Your task to perform on an android device: remove spam from my inbox in the gmail app Image 0: 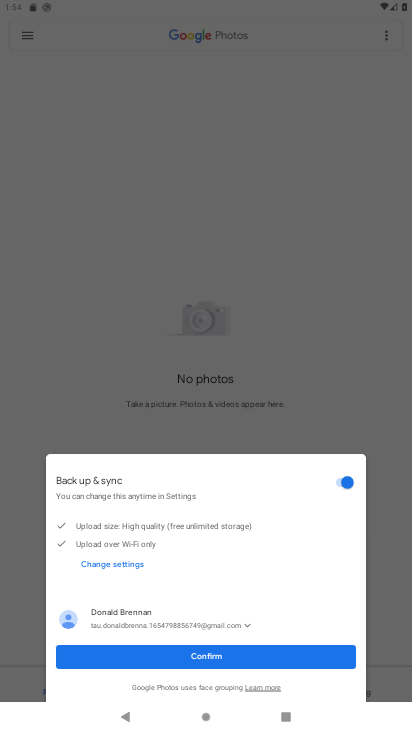
Step 0: press home button
Your task to perform on an android device: remove spam from my inbox in the gmail app Image 1: 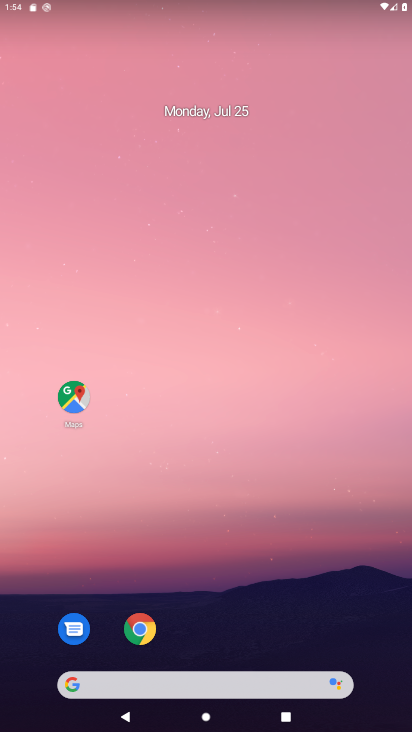
Step 1: drag from (266, 523) to (284, 32)
Your task to perform on an android device: remove spam from my inbox in the gmail app Image 2: 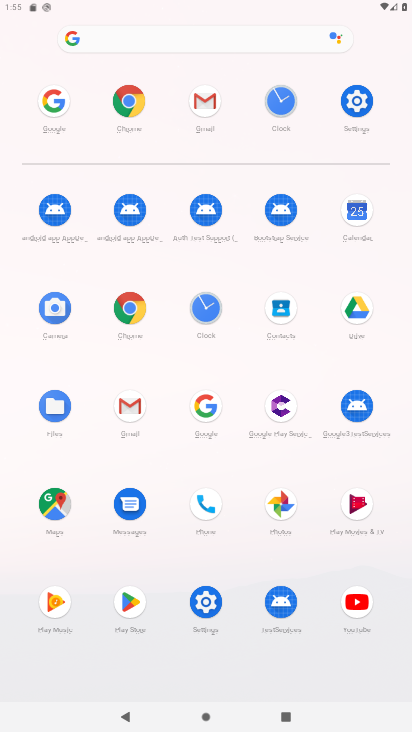
Step 2: click (210, 106)
Your task to perform on an android device: remove spam from my inbox in the gmail app Image 3: 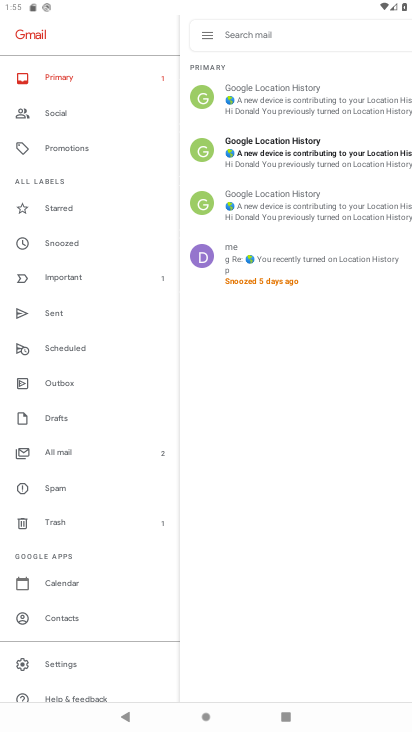
Step 3: click (66, 491)
Your task to perform on an android device: remove spam from my inbox in the gmail app Image 4: 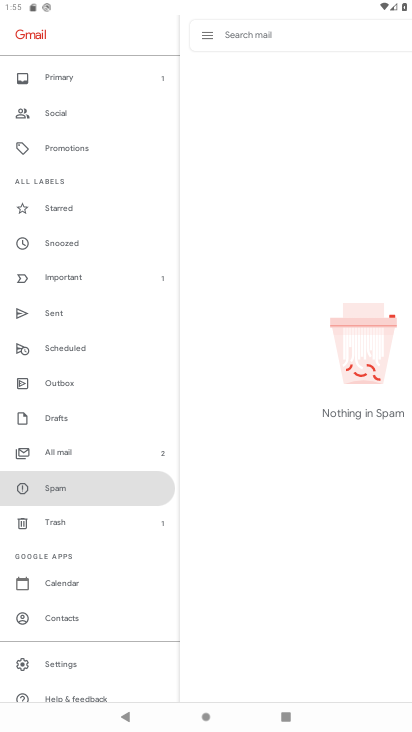
Step 4: task complete